Your task to perform on an android device: turn off javascript in the chrome app Image 0: 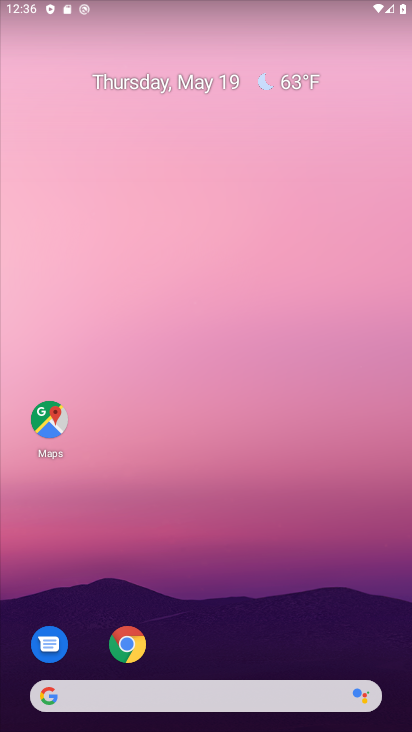
Step 0: drag from (366, 253) to (349, 152)
Your task to perform on an android device: turn off javascript in the chrome app Image 1: 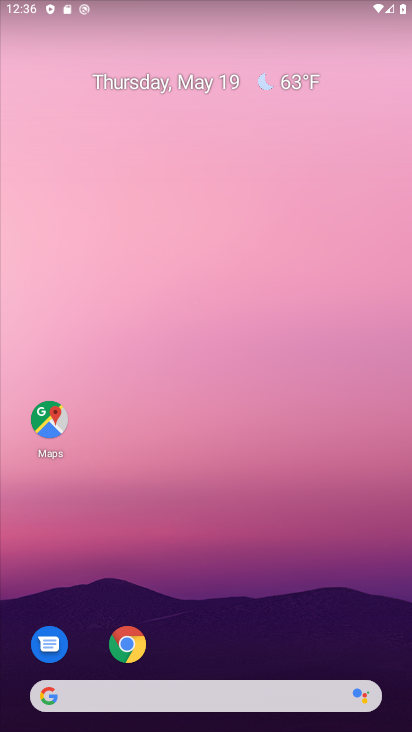
Step 1: drag from (372, 494) to (322, 179)
Your task to perform on an android device: turn off javascript in the chrome app Image 2: 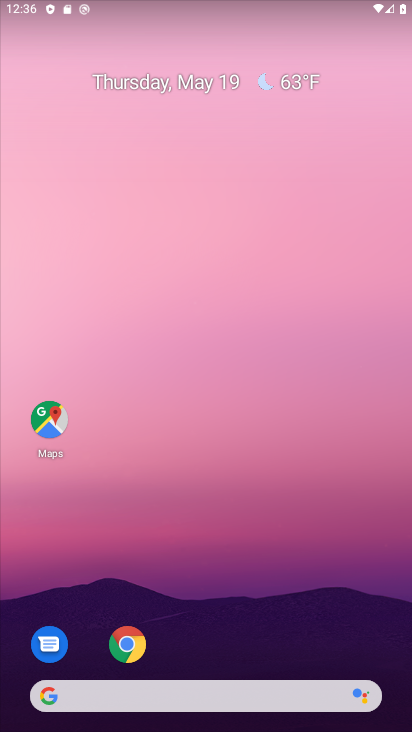
Step 2: click (118, 637)
Your task to perform on an android device: turn off javascript in the chrome app Image 3: 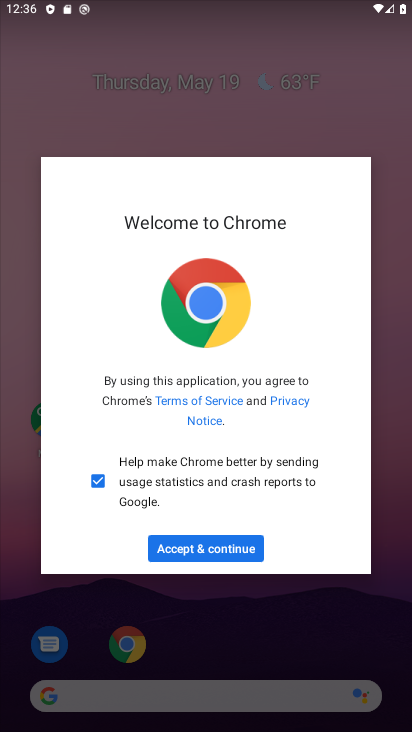
Step 3: click (197, 548)
Your task to perform on an android device: turn off javascript in the chrome app Image 4: 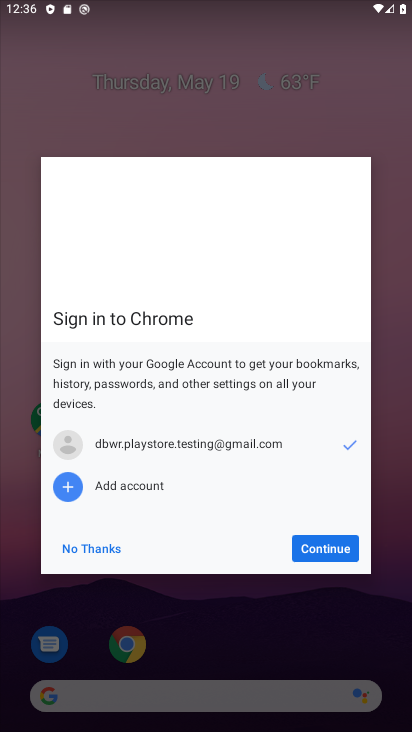
Step 4: click (342, 543)
Your task to perform on an android device: turn off javascript in the chrome app Image 5: 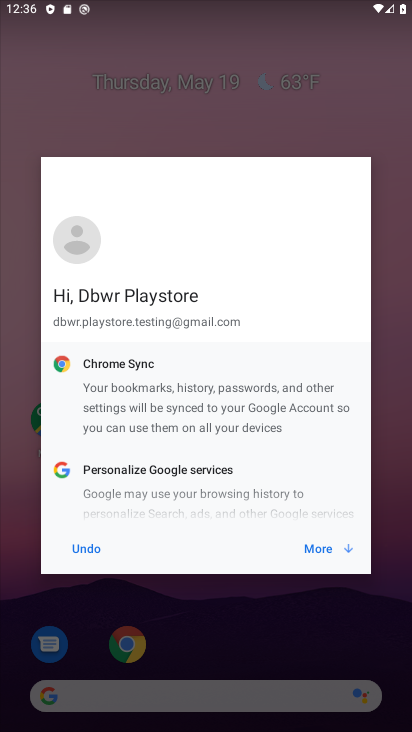
Step 5: click (328, 546)
Your task to perform on an android device: turn off javascript in the chrome app Image 6: 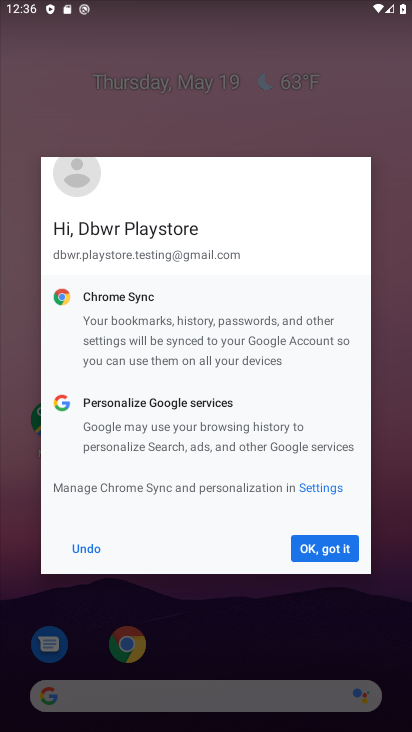
Step 6: click (328, 547)
Your task to perform on an android device: turn off javascript in the chrome app Image 7: 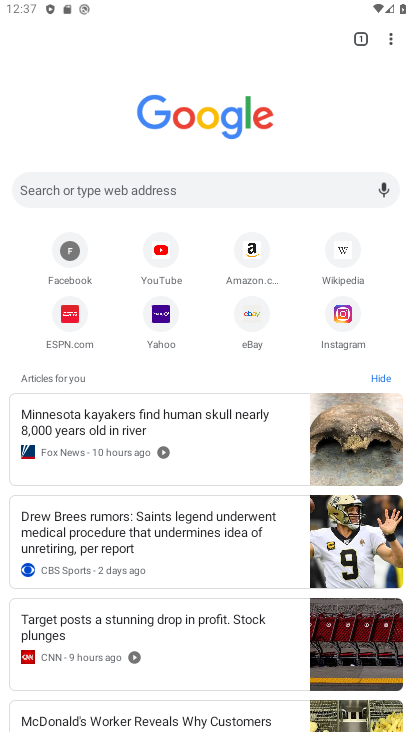
Step 7: click (385, 37)
Your task to perform on an android device: turn off javascript in the chrome app Image 8: 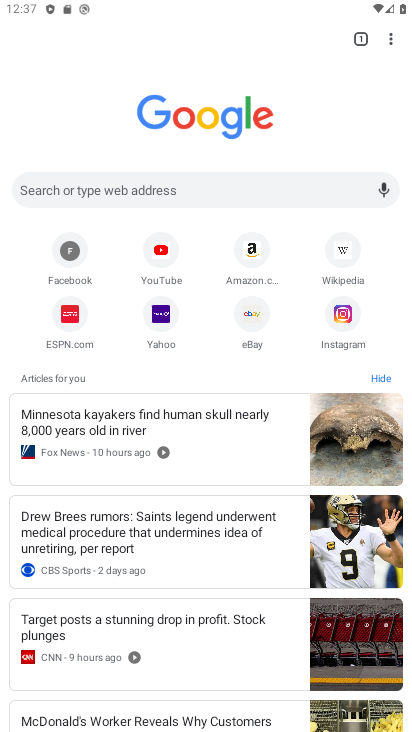
Step 8: click (393, 37)
Your task to perform on an android device: turn off javascript in the chrome app Image 9: 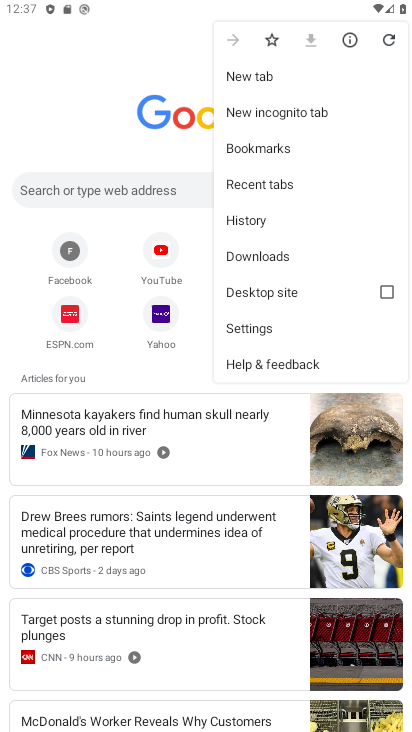
Step 9: click (263, 323)
Your task to perform on an android device: turn off javascript in the chrome app Image 10: 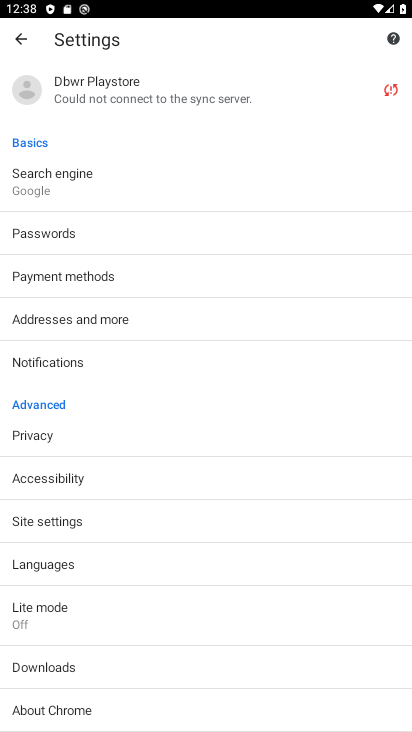
Step 10: click (62, 519)
Your task to perform on an android device: turn off javascript in the chrome app Image 11: 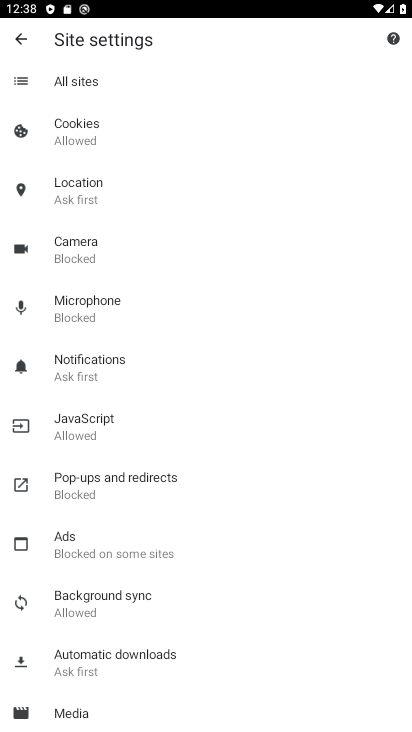
Step 11: click (89, 415)
Your task to perform on an android device: turn off javascript in the chrome app Image 12: 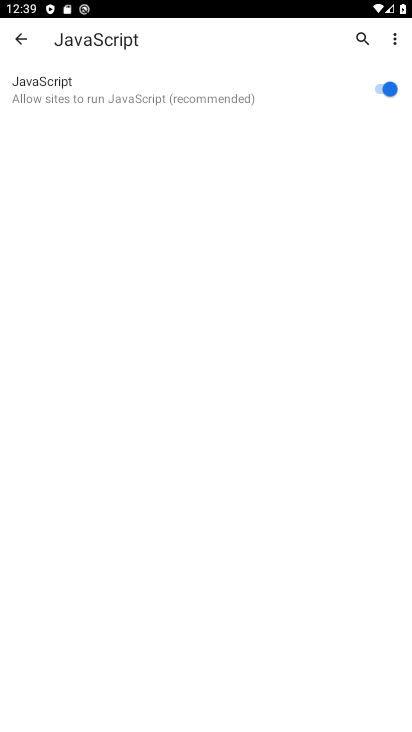
Step 12: click (373, 89)
Your task to perform on an android device: turn off javascript in the chrome app Image 13: 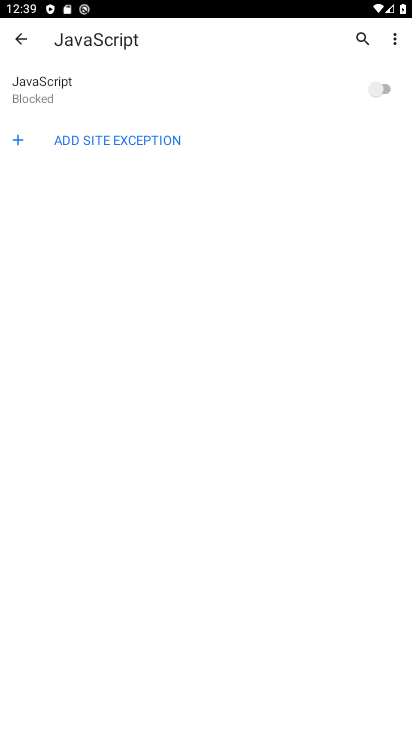
Step 13: task complete